Your task to perform on an android device: Open Chrome and go to the settings page Image 0: 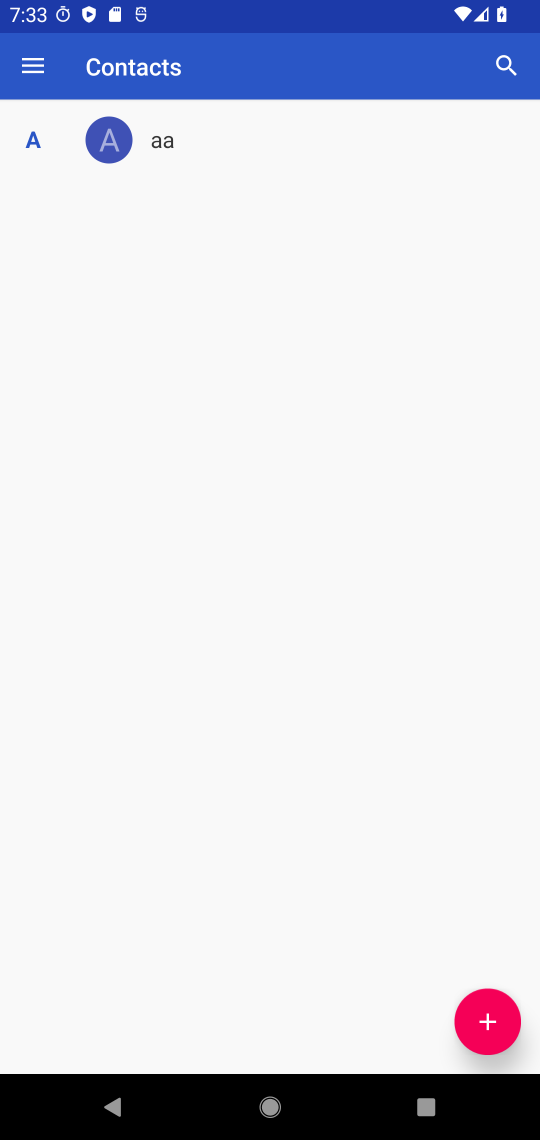
Step 0: press home button
Your task to perform on an android device: Open Chrome and go to the settings page Image 1: 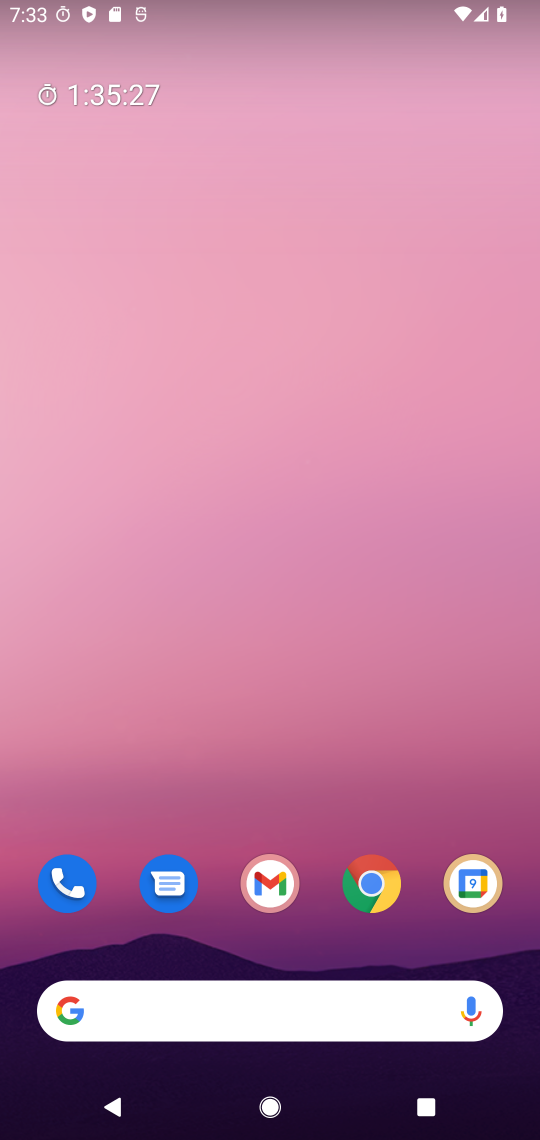
Step 1: click (375, 877)
Your task to perform on an android device: Open Chrome and go to the settings page Image 2: 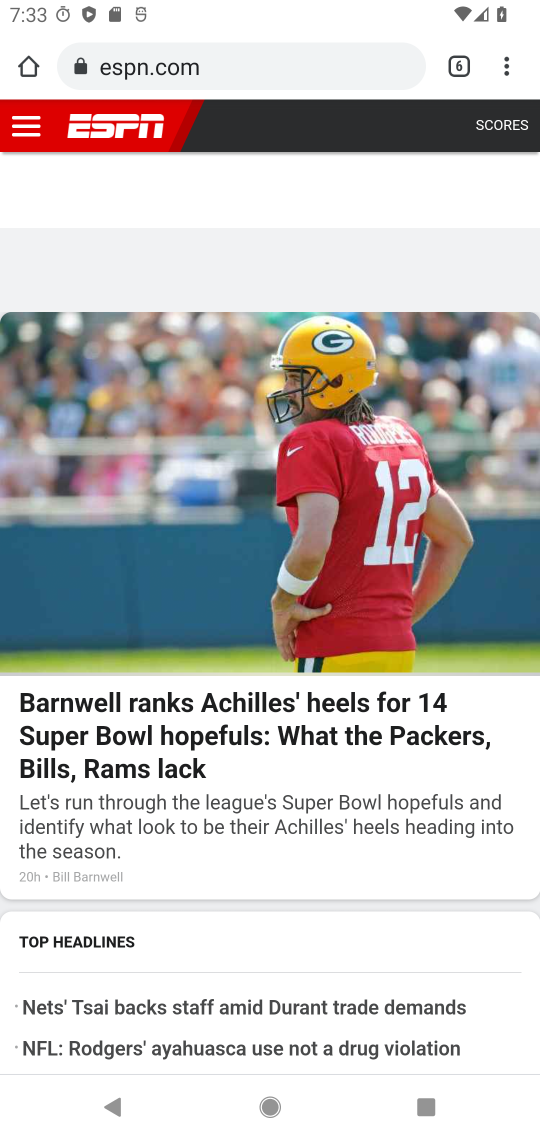
Step 2: click (512, 79)
Your task to perform on an android device: Open Chrome and go to the settings page Image 3: 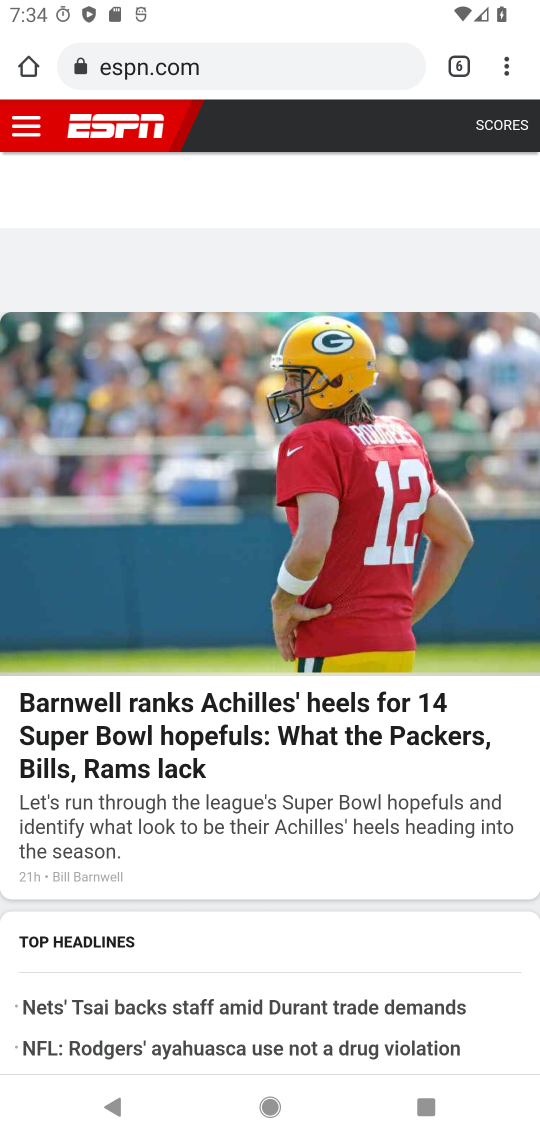
Step 3: click (510, 64)
Your task to perform on an android device: Open Chrome and go to the settings page Image 4: 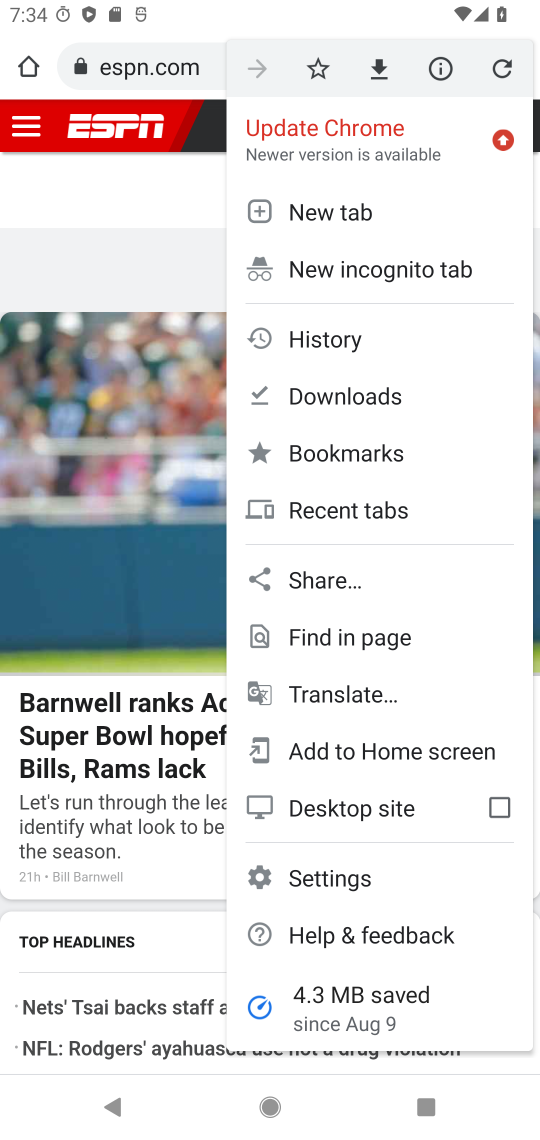
Step 4: click (325, 877)
Your task to perform on an android device: Open Chrome and go to the settings page Image 5: 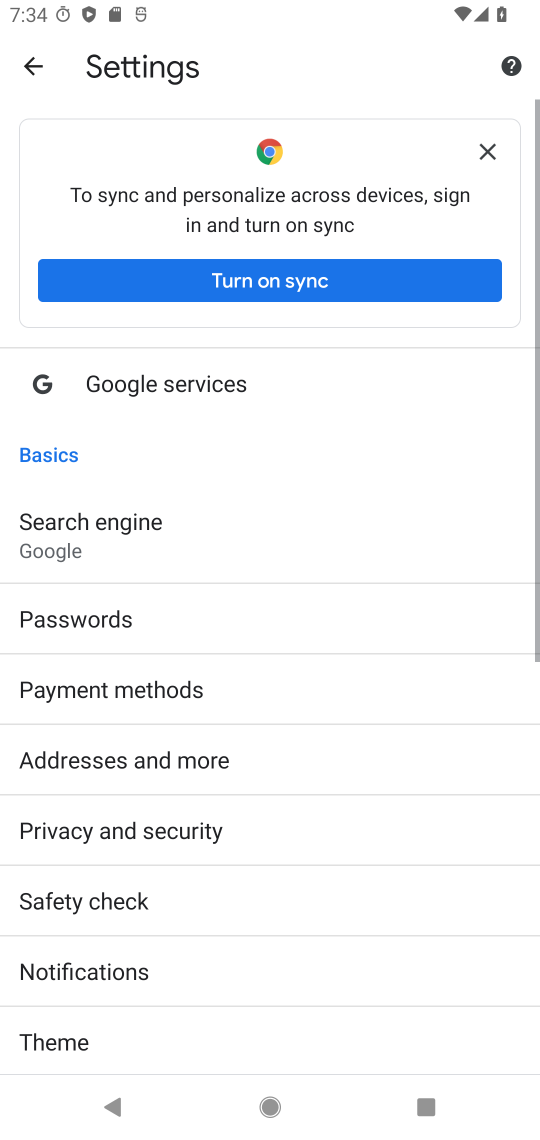
Step 5: task complete